Your task to perform on an android device: check android version Image 0: 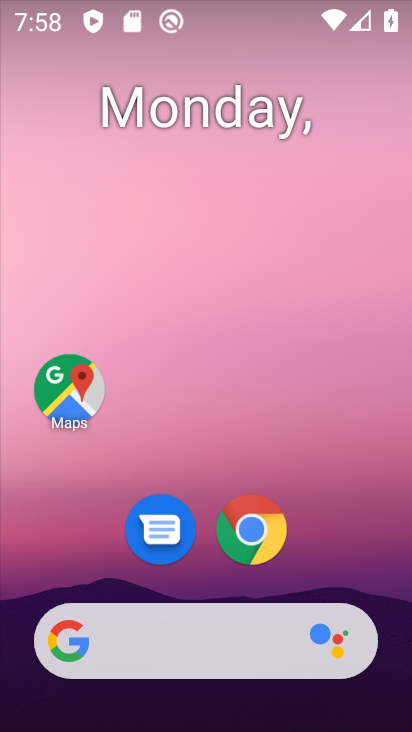
Step 0: drag from (199, 539) to (247, 107)
Your task to perform on an android device: check android version Image 1: 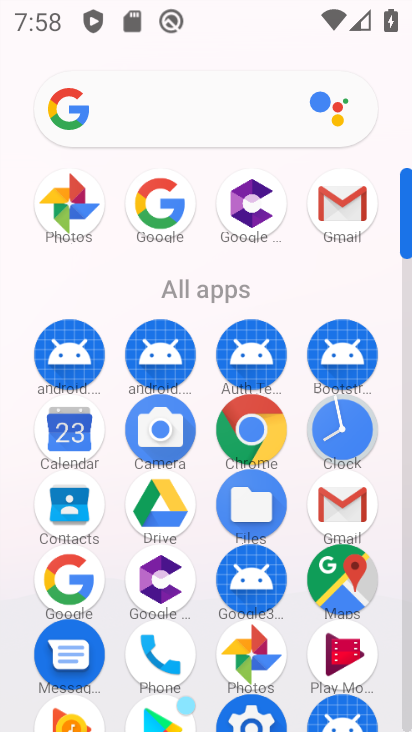
Step 1: drag from (199, 529) to (249, 158)
Your task to perform on an android device: check android version Image 2: 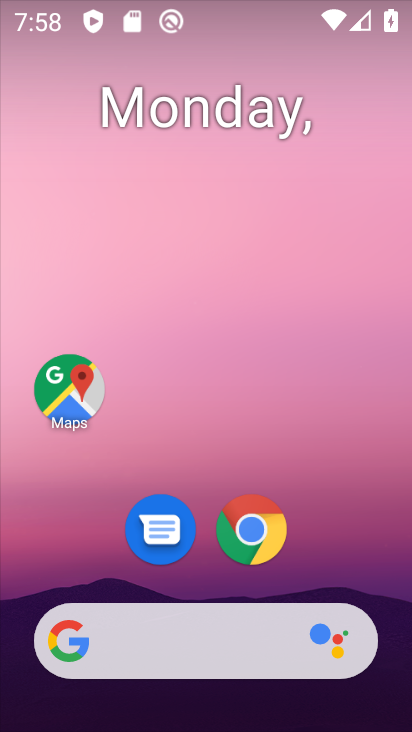
Step 2: drag from (211, 572) to (231, 122)
Your task to perform on an android device: check android version Image 3: 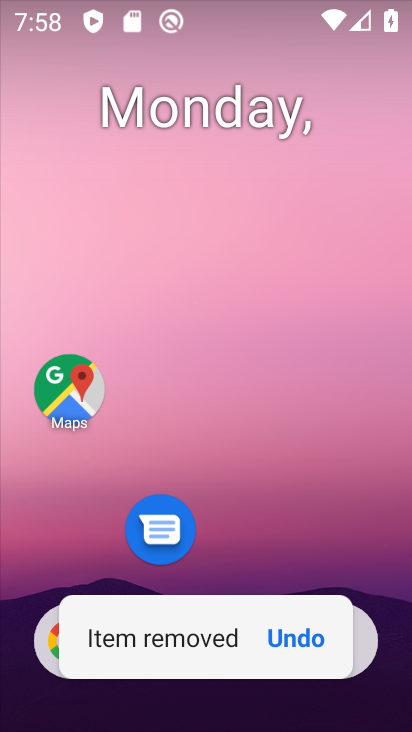
Step 3: drag from (237, 553) to (231, 98)
Your task to perform on an android device: check android version Image 4: 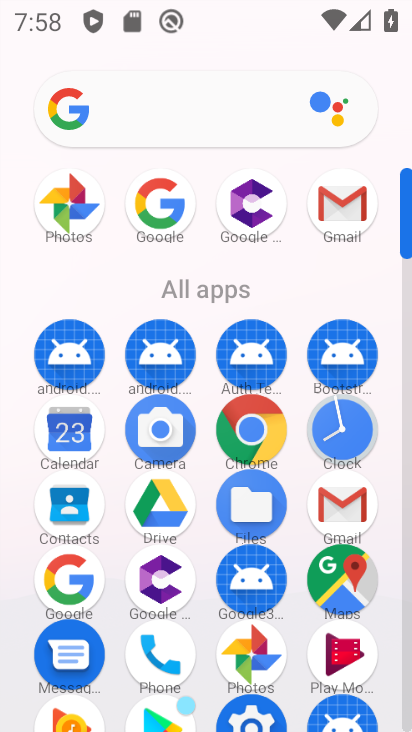
Step 4: drag from (199, 542) to (206, 191)
Your task to perform on an android device: check android version Image 5: 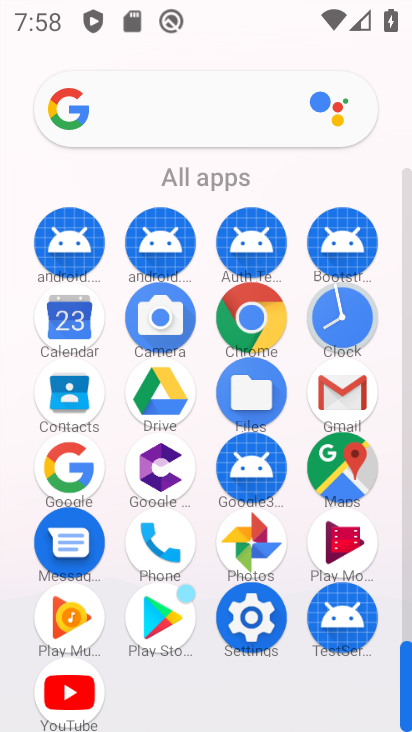
Step 5: click (228, 603)
Your task to perform on an android device: check android version Image 6: 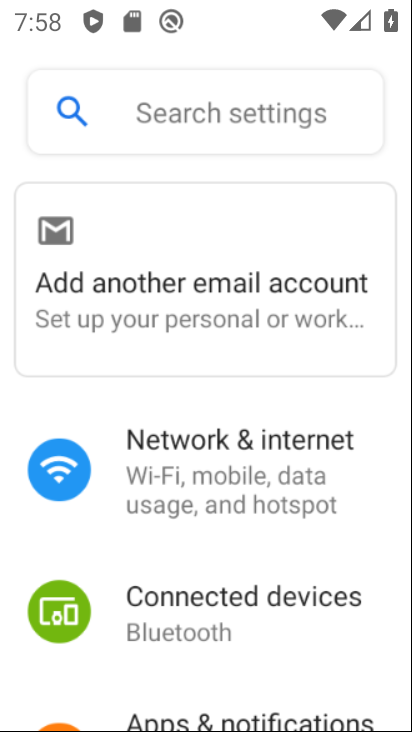
Step 6: drag from (231, 631) to (224, 70)
Your task to perform on an android device: check android version Image 7: 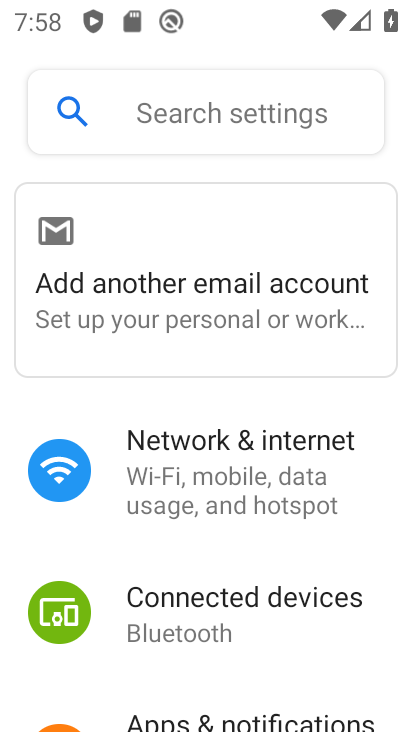
Step 7: drag from (225, 527) to (272, 119)
Your task to perform on an android device: check android version Image 8: 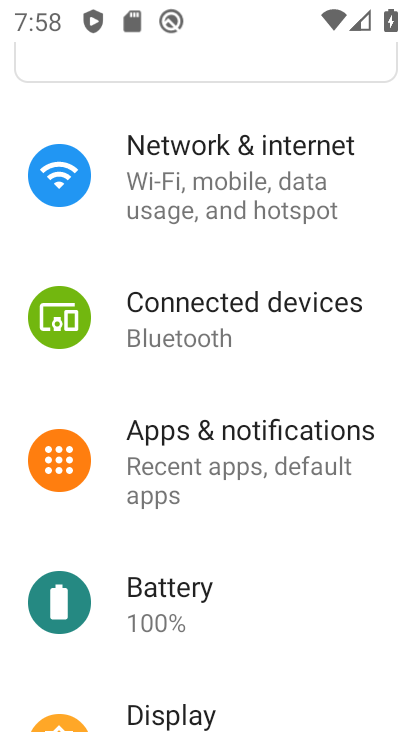
Step 8: drag from (263, 635) to (276, 208)
Your task to perform on an android device: check android version Image 9: 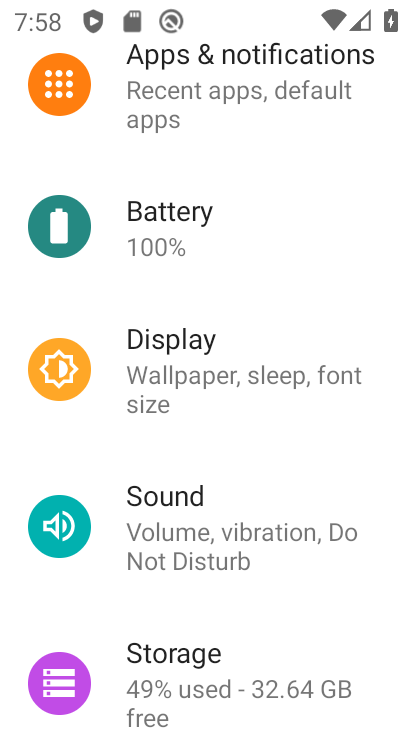
Step 9: drag from (260, 626) to (262, 107)
Your task to perform on an android device: check android version Image 10: 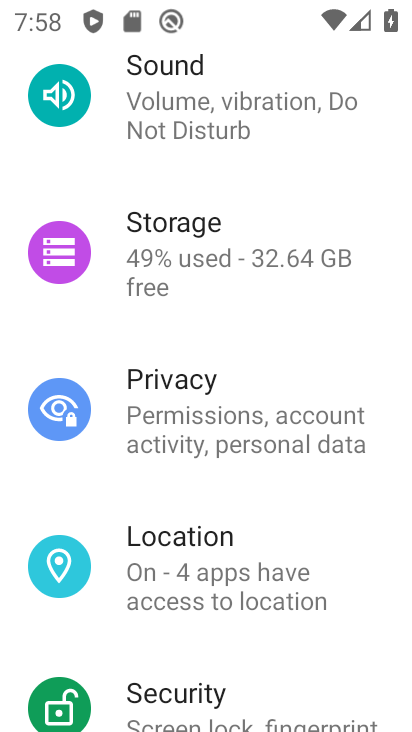
Step 10: drag from (231, 594) to (251, 163)
Your task to perform on an android device: check android version Image 11: 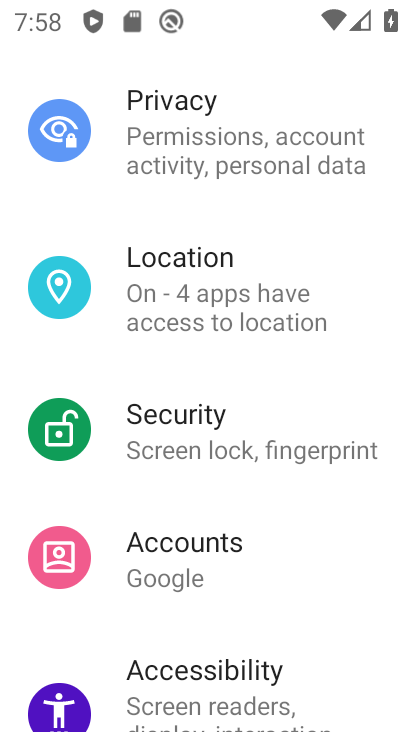
Step 11: drag from (246, 604) to (251, 100)
Your task to perform on an android device: check android version Image 12: 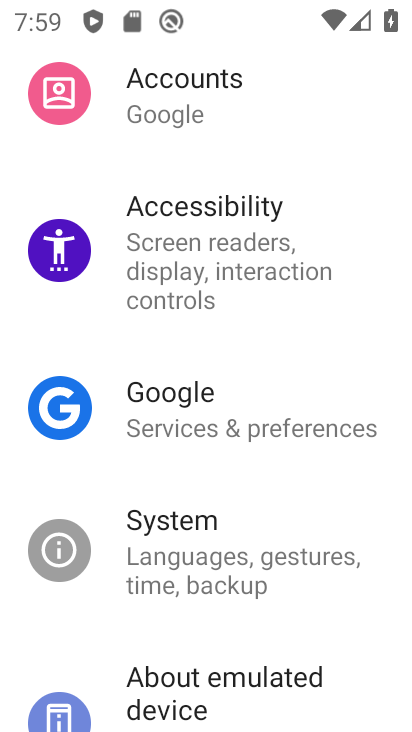
Step 12: drag from (261, 586) to (274, 342)
Your task to perform on an android device: check android version Image 13: 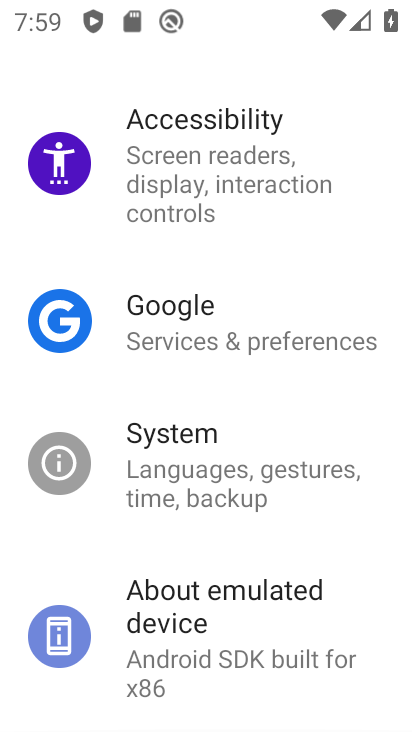
Step 13: click (265, 640)
Your task to perform on an android device: check android version Image 14: 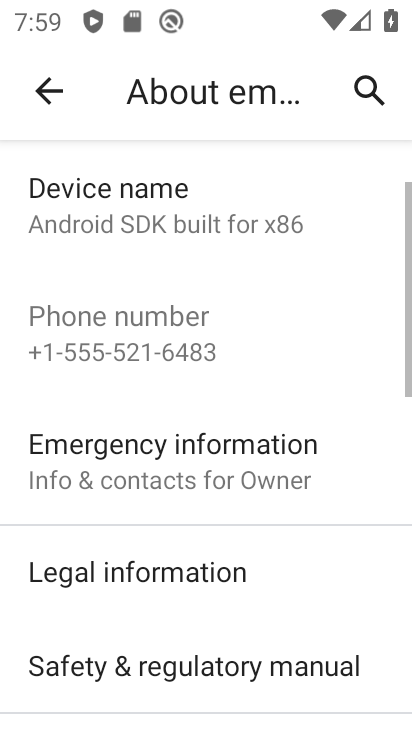
Step 14: drag from (247, 600) to (263, 185)
Your task to perform on an android device: check android version Image 15: 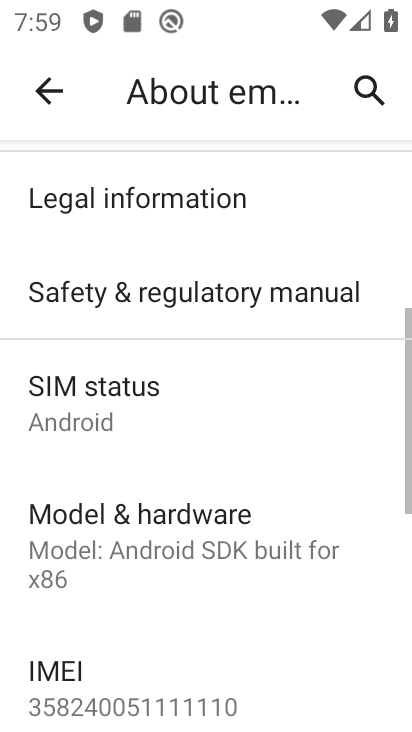
Step 15: drag from (224, 577) to (225, 222)
Your task to perform on an android device: check android version Image 16: 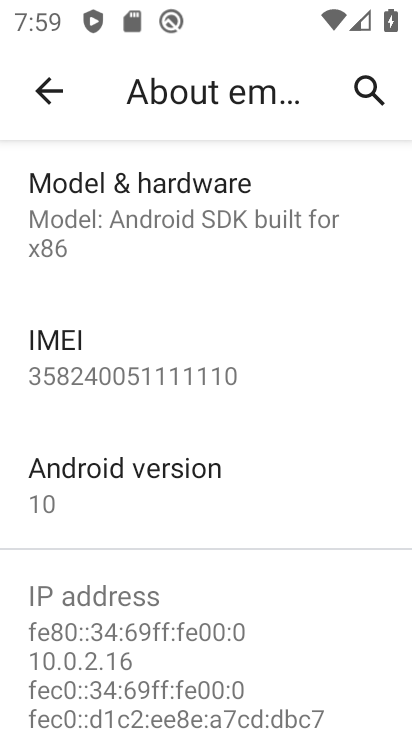
Step 16: click (200, 504)
Your task to perform on an android device: check android version Image 17: 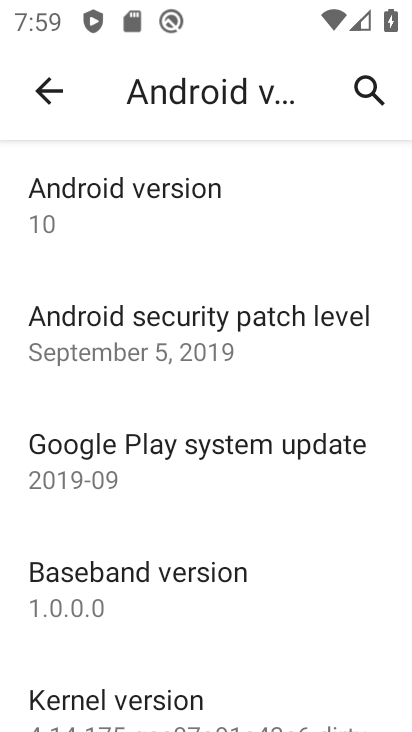
Step 17: drag from (206, 639) to (245, 480)
Your task to perform on an android device: check android version Image 18: 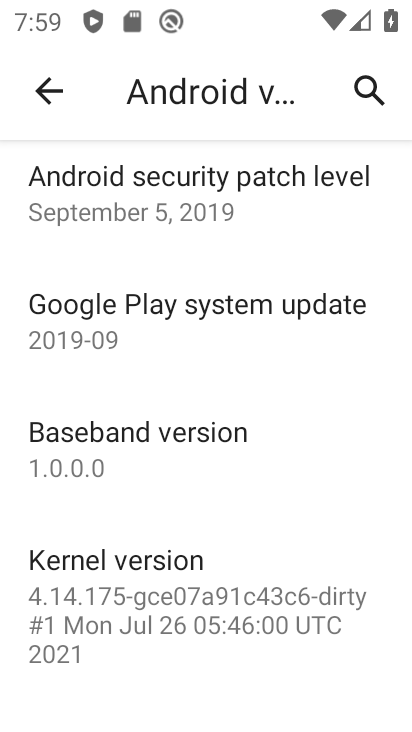
Step 18: drag from (245, 571) to (258, 312)
Your task to perform on an android device: check android version Image 19: 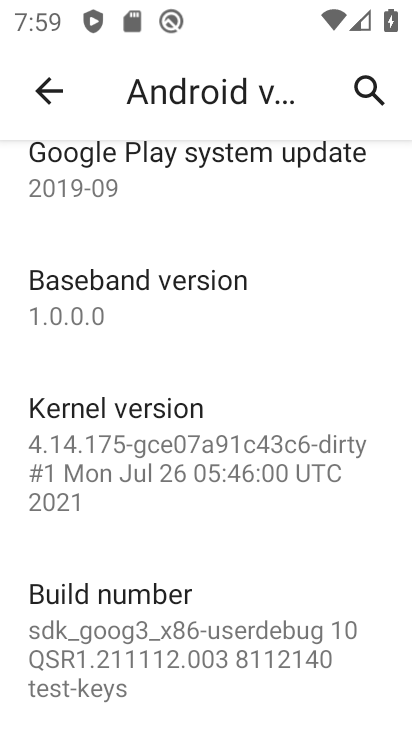
Step 19: drag from (187, 284) to (187, 533)
Your task to perform on an android device: check android version Image 20: 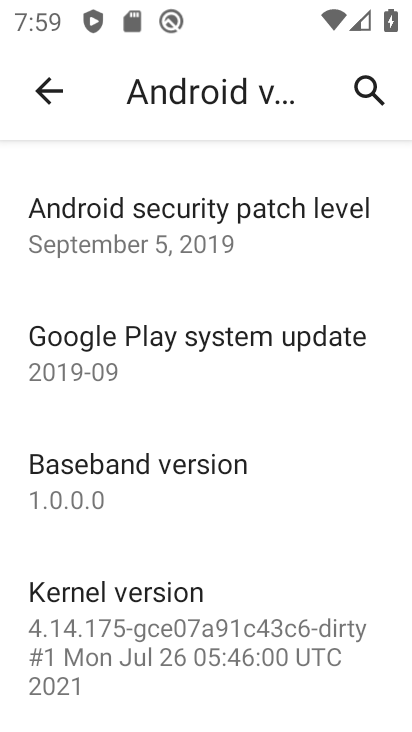
Step 20: drag from (192, 282) to (198, 581)
Your task to perform on an android device: check android version Image 21: 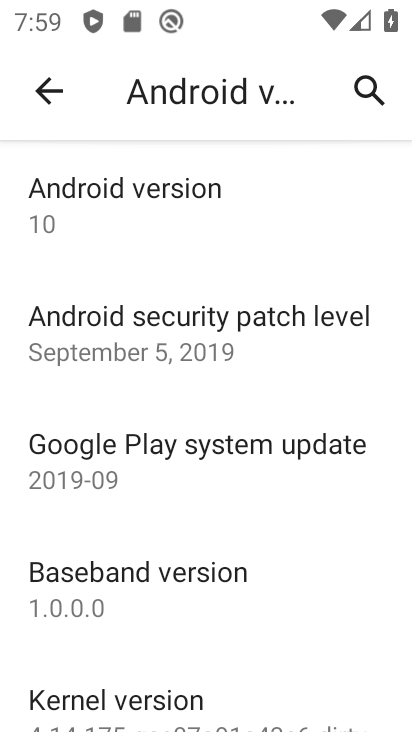
Step 21: click (134, 215)
Your task to perform on an android device: check android version Image 22: 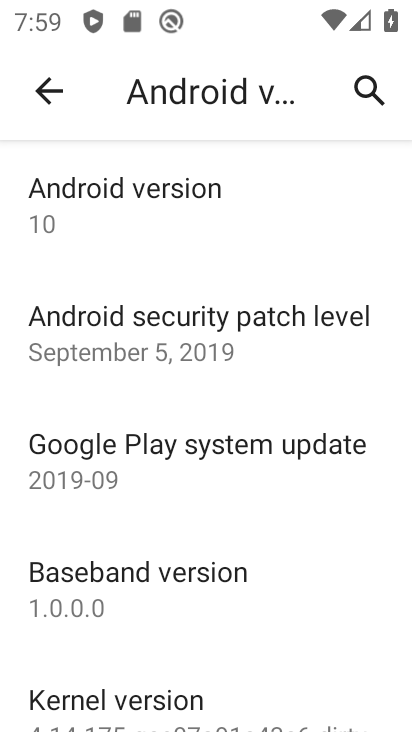
Step 22: task complete